Your task to perform on an android device: open app "Adobe Express: Graphic Design" (install if not already installed) and go to login screen Image 0: 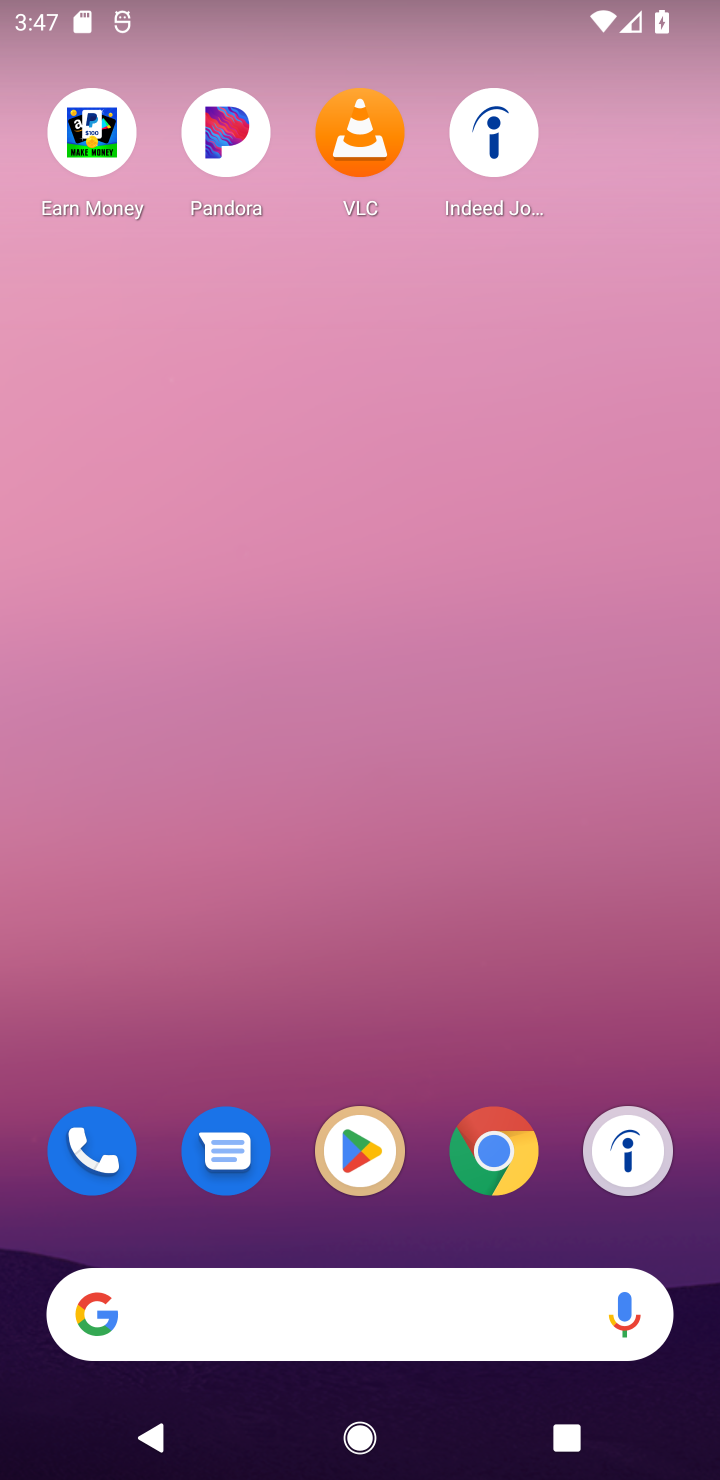
Step 0: click (355, 1140)
Your task to perform on an android device: open app "Adobe Express: Graphic Design" (install if not already installed) and go to login screen Image 1: 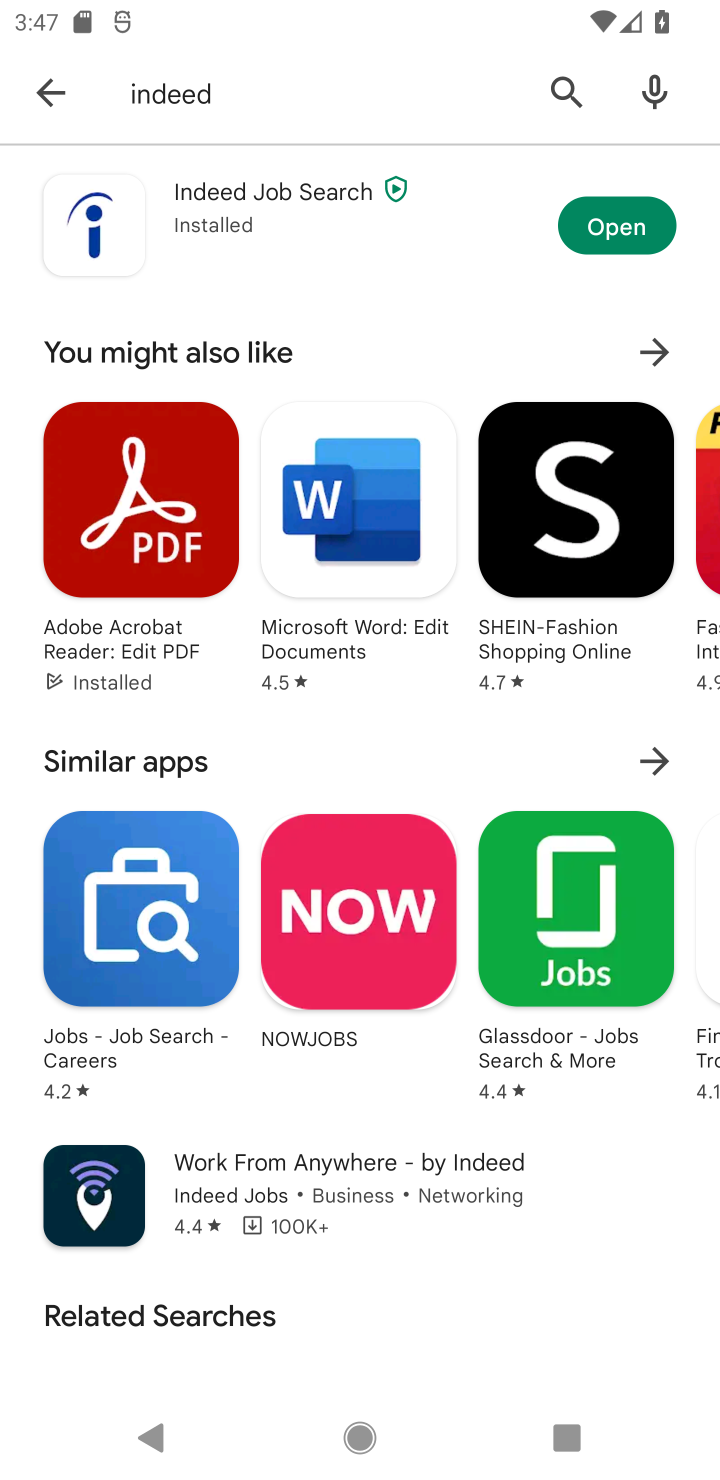
Step 1: click (558, 86)
Your task to perform on an android device: open app "Adobe Express: Graphic Design" (install if not already installed) and go to login screen Image 2: 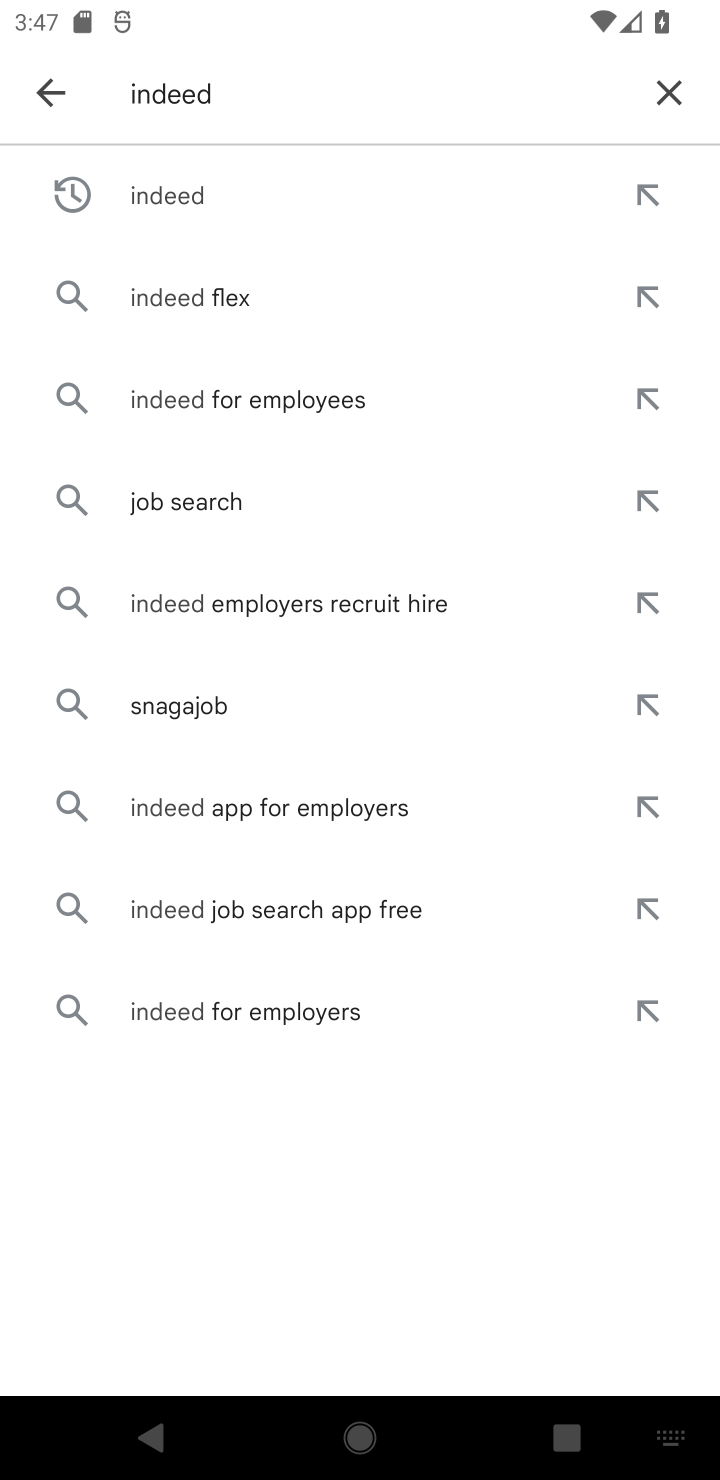
Step 2: click (654, 95)
Your task to perform on an android device: open app "Adobe Express: Graphic Design" (install if not already installed) and go to login screen Image 3: 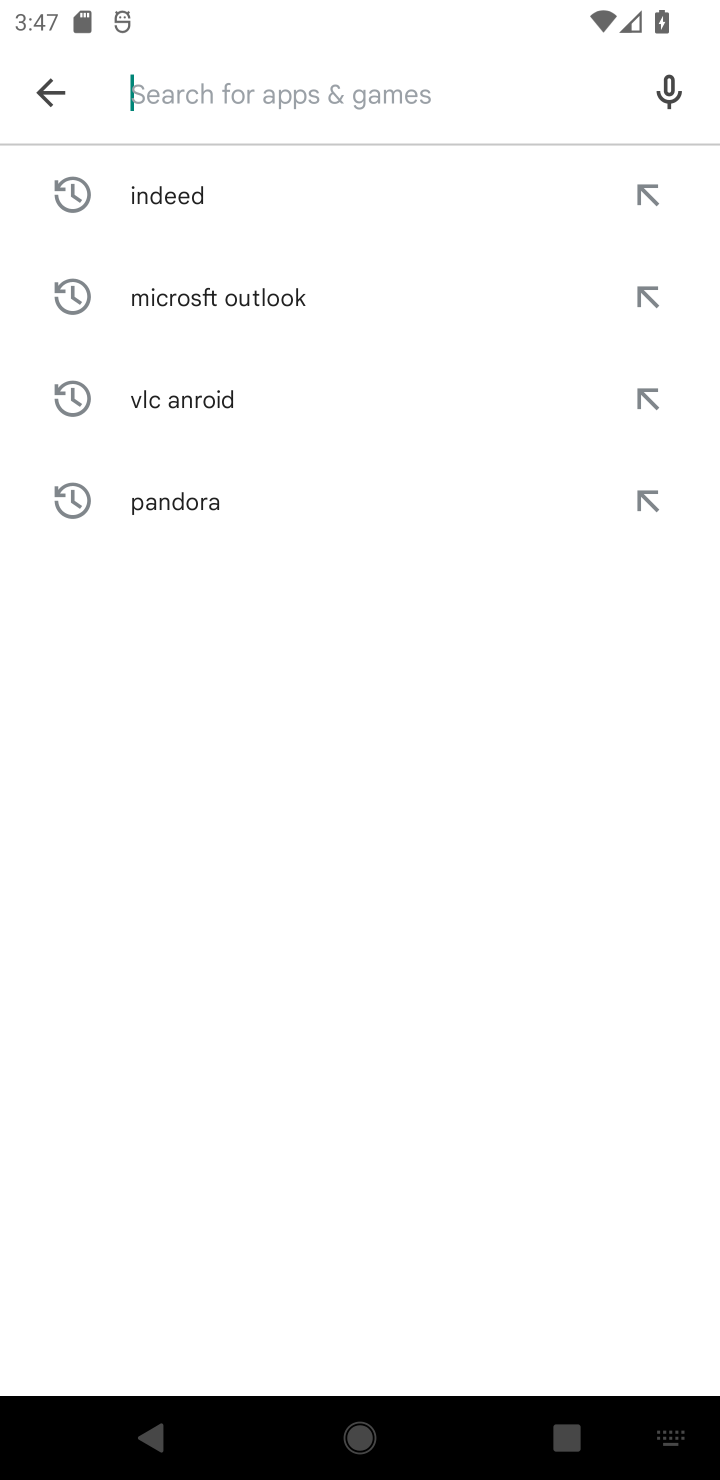
Step 3: type "adobe express"
Your task to perform on an android device: open app "Adobe Express: Graphic Design" (install if not already installed) and go to login screen Image 4: 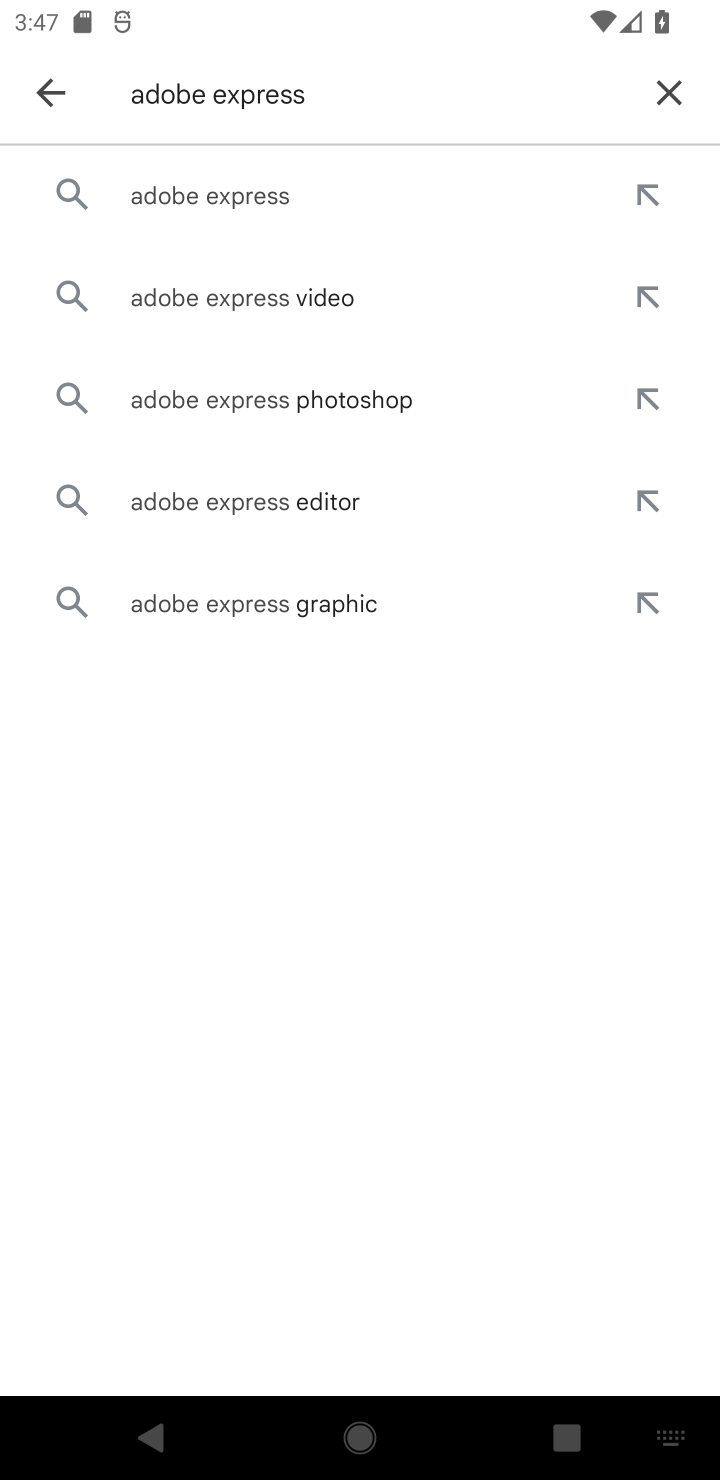
Step 4: click (194, 186)
Your task to perform on an android device: open app "Adobe Express: Graphic Design" (install if not already installed) and go to login screen Image 5: 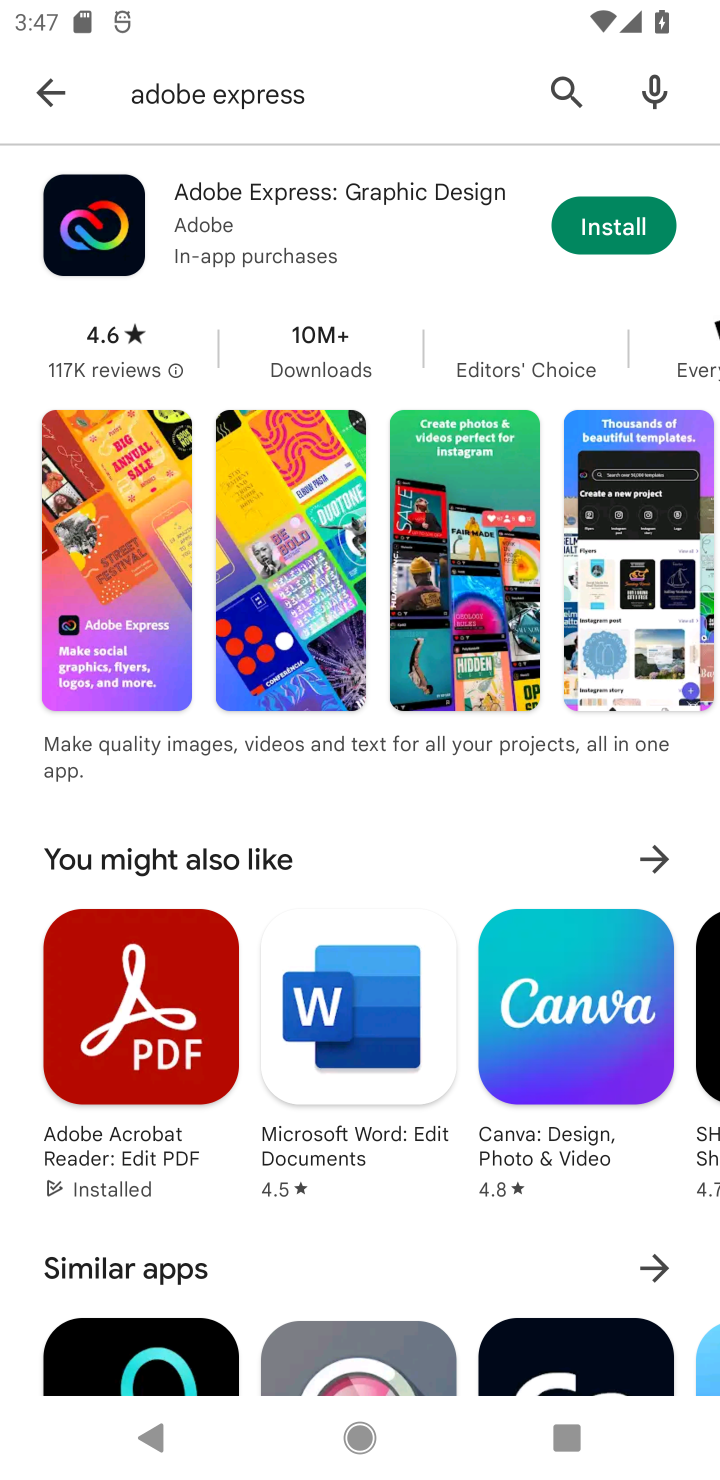
Step 5: click (621, 221)
Your task to perform on an android device: open app "Adobe Express: Graphic Design" (install if not already installed) and go to login screen Image 6: 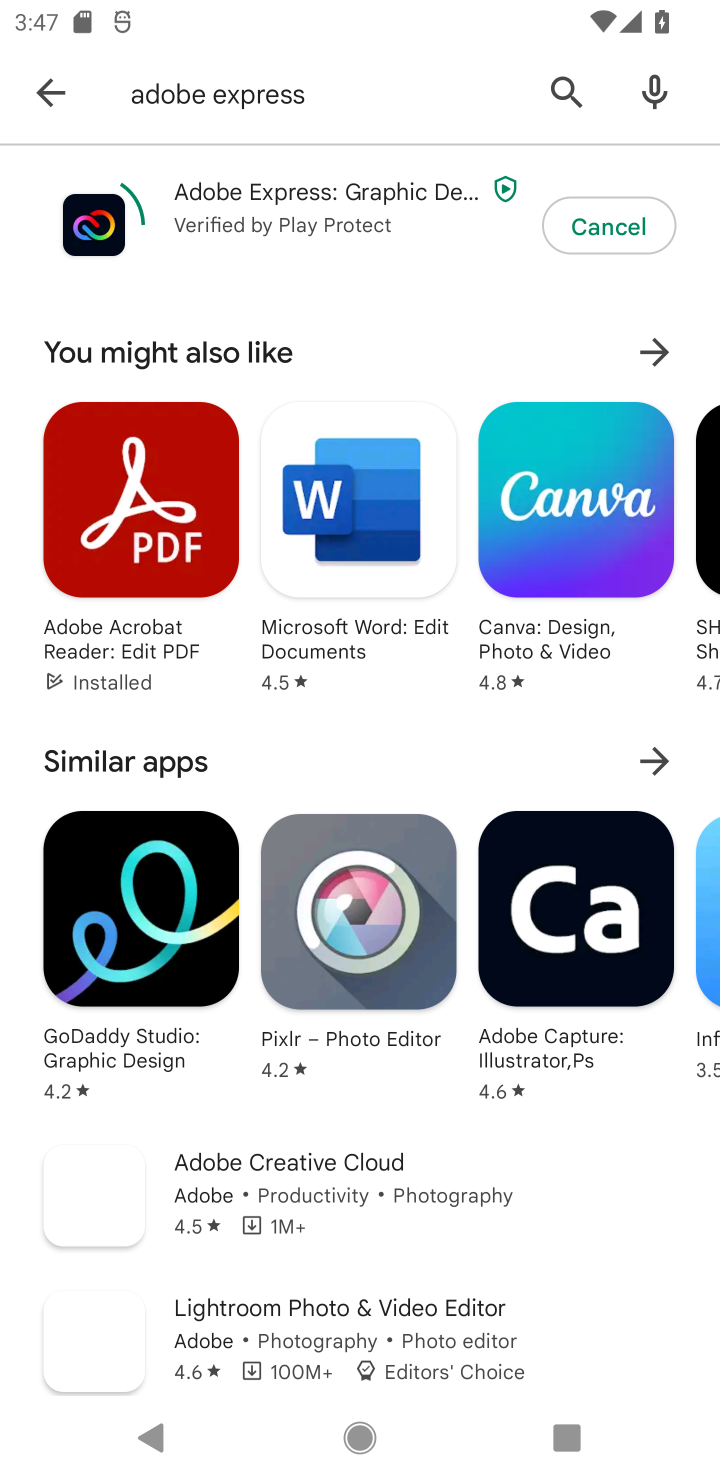
Step 6: task complete